Your task to perform on an android device: visit the assistant section in the google photos Image 0: 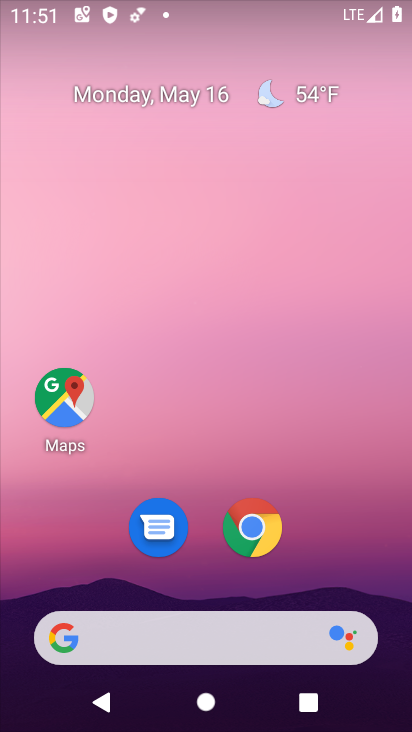
Step 0: drag from (221, 687) to (241, 468)
Your task to perform on an android device: visit the assistant section in the google photos Image 1: 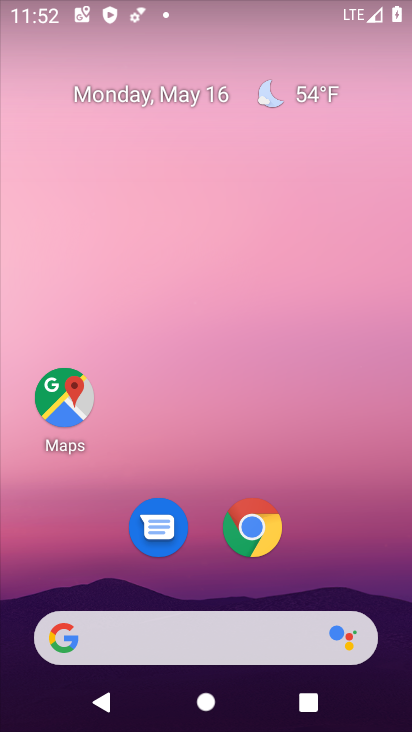
Step 1: drag from (251, 647) to (269, 228)
Your task to perform on an android device: visit the assistant section in the google photos Image 2: 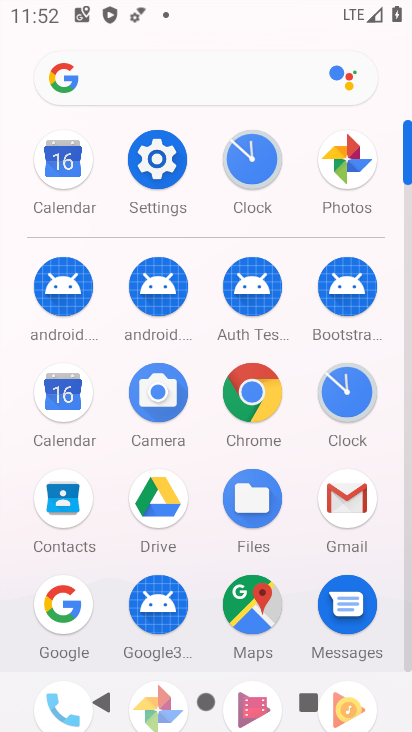
Step 2: drag from (212, 567) to (224, 412)
Your task to perform on an android device: visit the assistant section in the google photos Image 3: 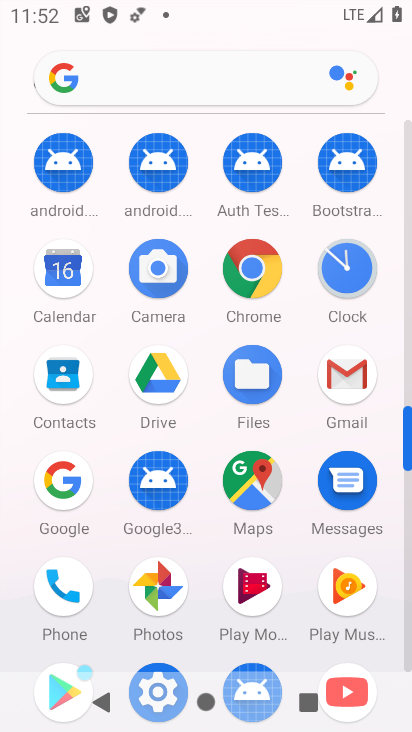
Step 3: click (161, 555)
Your task to perform on an android device: visit the assistant section in the google photos Image 4: 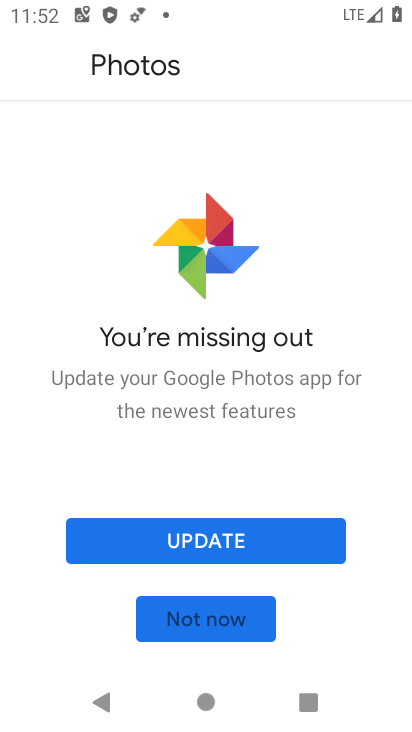
Step 4: click (200, 537)
Your task to perform on an android device: visit the assistant section in the google photos Image 5: 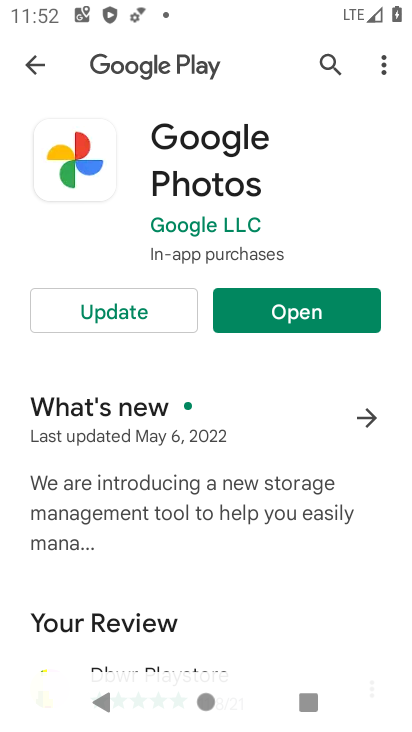
Step 5: click (286, 313)
Your task to perform on an android device: visit the assistant section in the google photos Image 6: 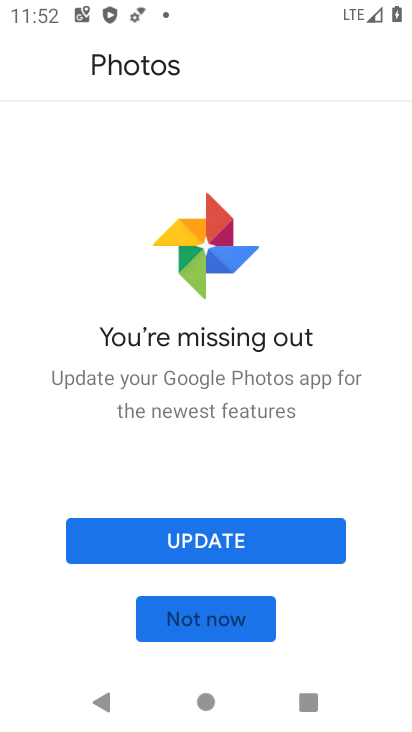
Step 6: click (279, 660)
Your task to perform on an android device: visit the assistant section in the google photos Image 7: 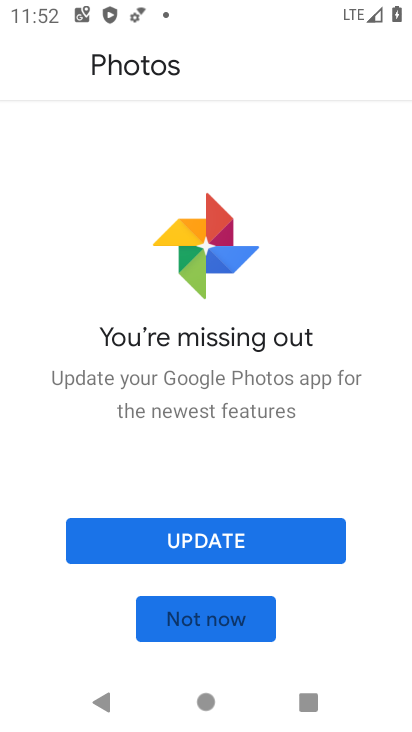
Step 7: click (228, 534)
Your task to perform on an android device: visit the assistant section in the google photos Image 8: 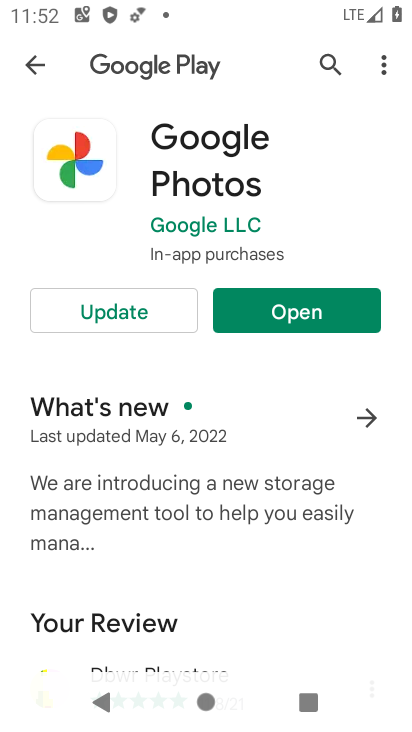
Step 8: click (264, 318)
Your task to perform on an android device: visit the assistant section in the google photos Image 9: 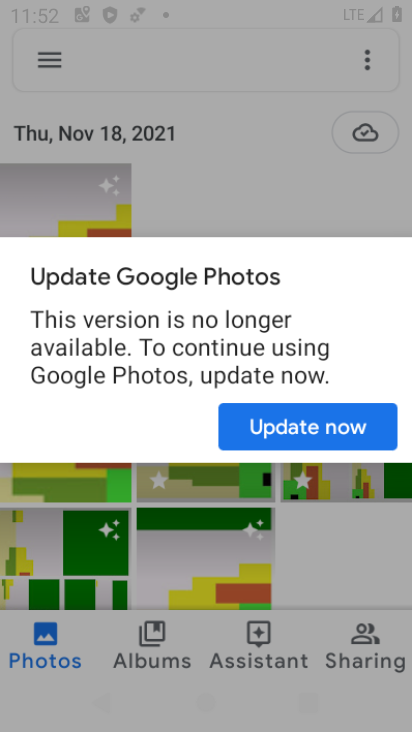
Step 9: click (252, 667)
Your task to perform on an android device: visit the assistant section in the google photos Image 10: 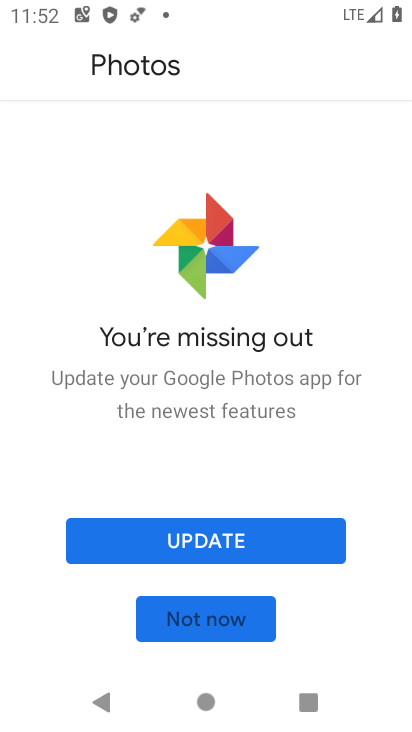
Step 10: click (256, 645)
Your task to perform on an android device: visit the assistant section in the google photos Image 11: 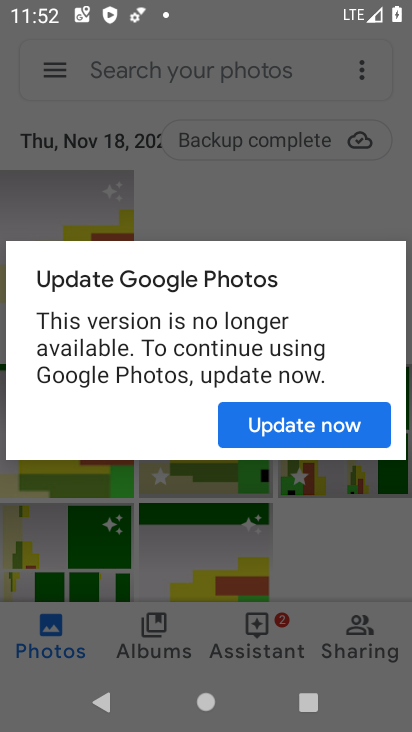
Step 11: click (299, 410)
Your task to perform on an android device: visit the assistant section in the google photos Image 12: 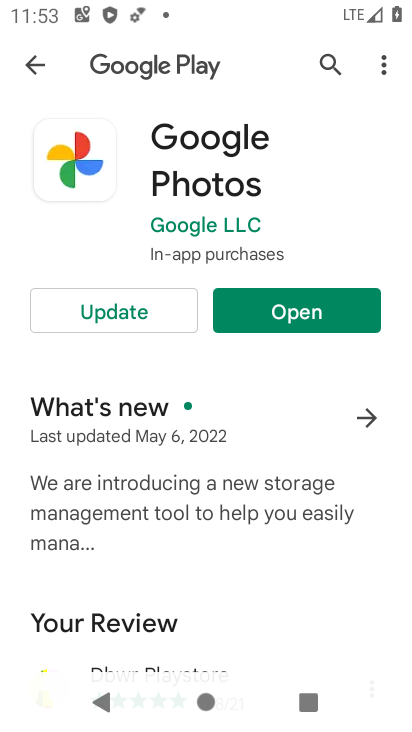
Step 12: click (142, 289)
Your task to perform on an android device: visit the assistant section in the google photos Image 13: 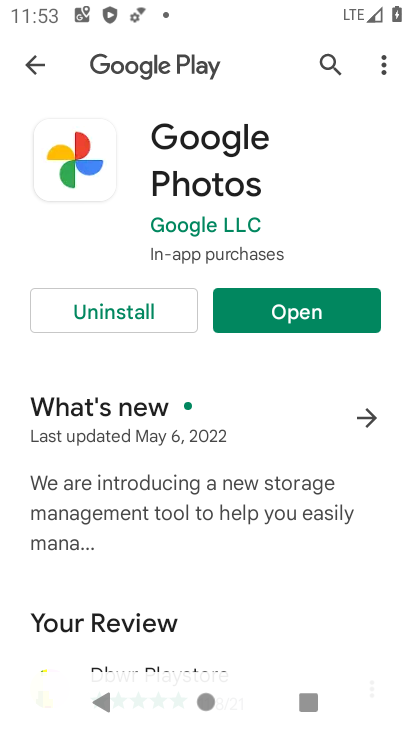
Step 13: click (281, 317)
Your task to perform on an android device: visit the assistant section in the google photos Image 14: 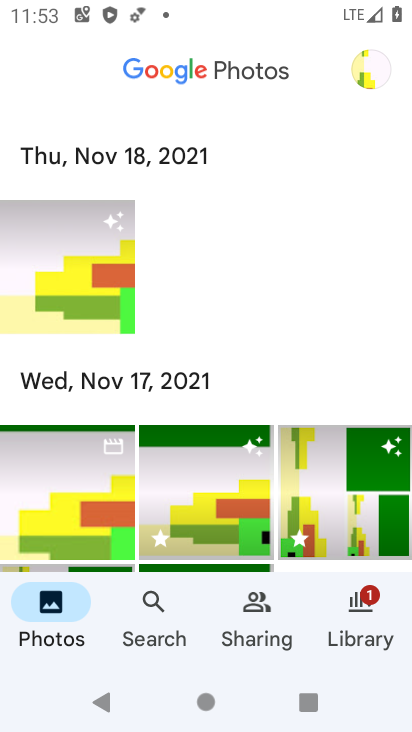
Step 14: click (182, 250)
Your task to perform on an android device: visit the assistant section in the google photos Image 15: 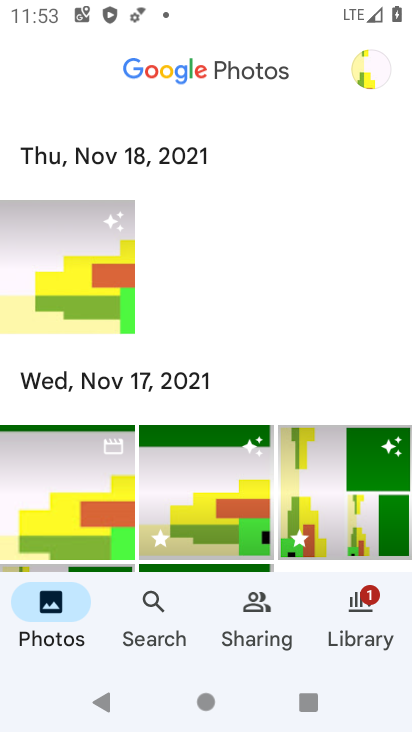
Step 15: click (361, 90)
Your task to perform on an android device: visit the assistant section in the google photos Image 16: 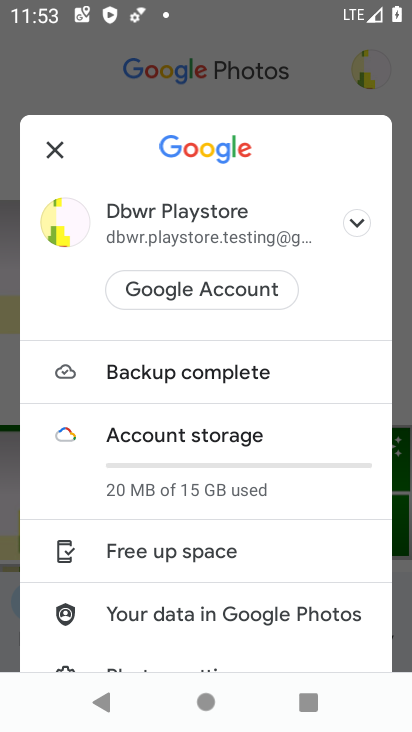
Step 16: drag from (190, 560) to (207, 354)
Your task to perform on an android device: visit the assistant section in the google photos Image 17: 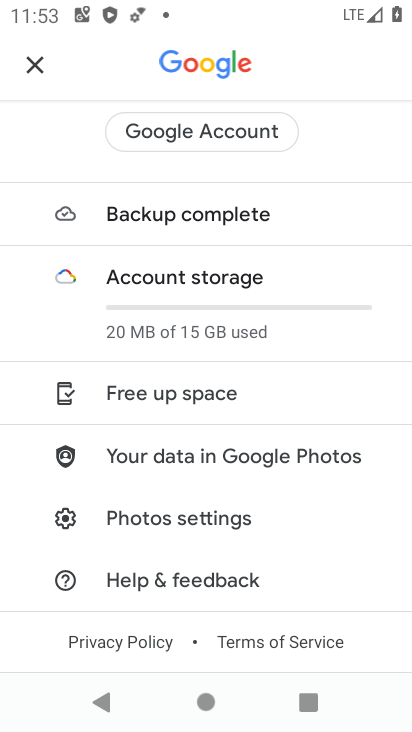
Step 17: click (196, 522)
Your task to perform on an android device: visit the assistant section in the google photos Image 18: 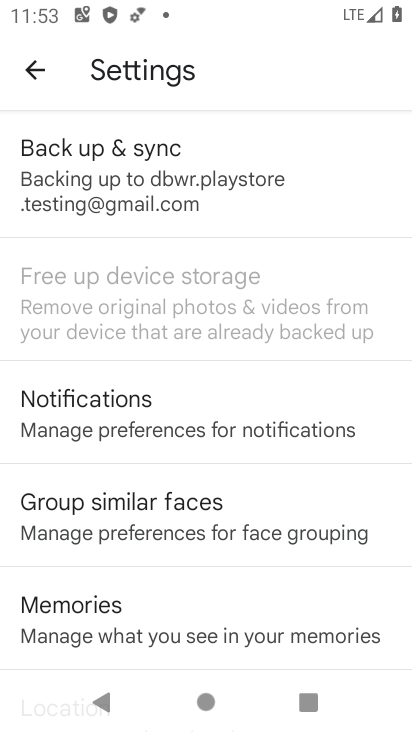
Step 18: task complete